Your task to perform on an android device: turn on javascript in the chrome app Image 0: 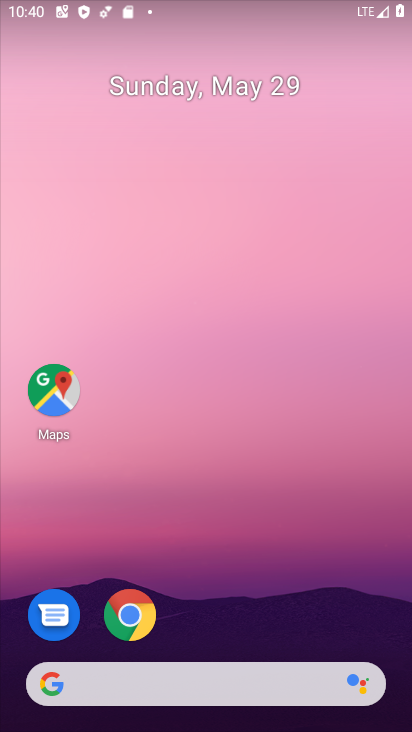
Step 0: drag from (367, 630) to (356, 285)
Your task to perform on an android device: turn on javascript in the chrome app Image 1: 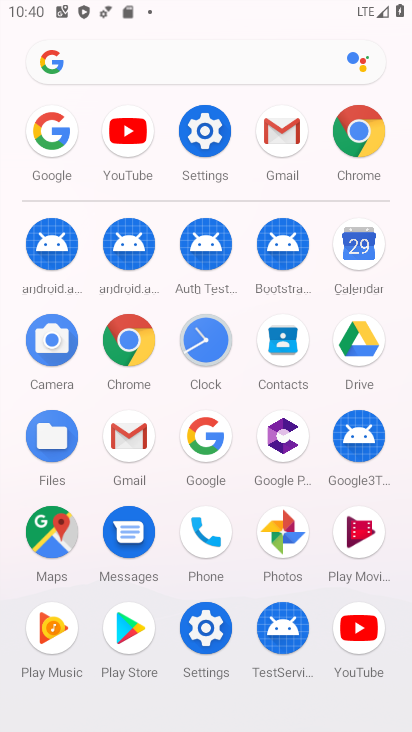
Step 1: click (136, 364)
Your task to perform on an android device: turn on javascript in the chrome app Image 2: 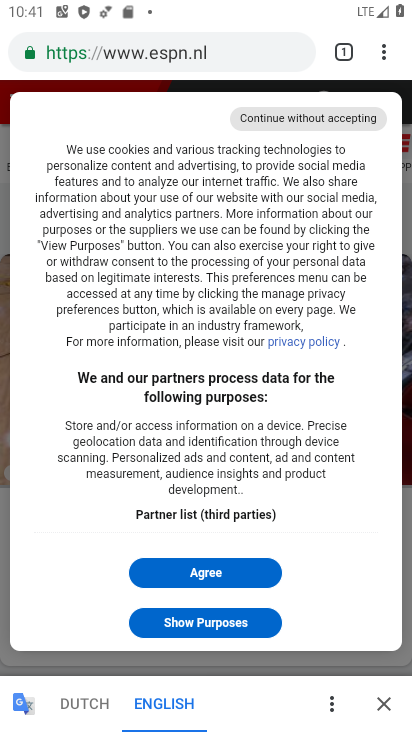
Step 2: click (382, 57)
Your task to perform on an android device: turn on javascript in the chrome app Image 3: 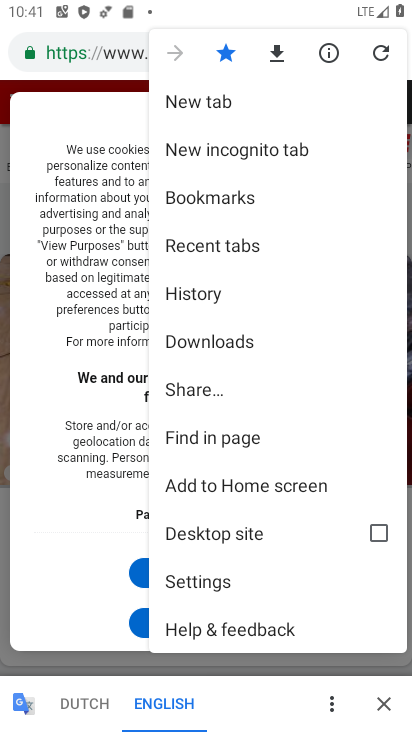
Step 3: click (271, 595)
Your task to perform on an android device: turn on javascript in the chrome app Image 4: 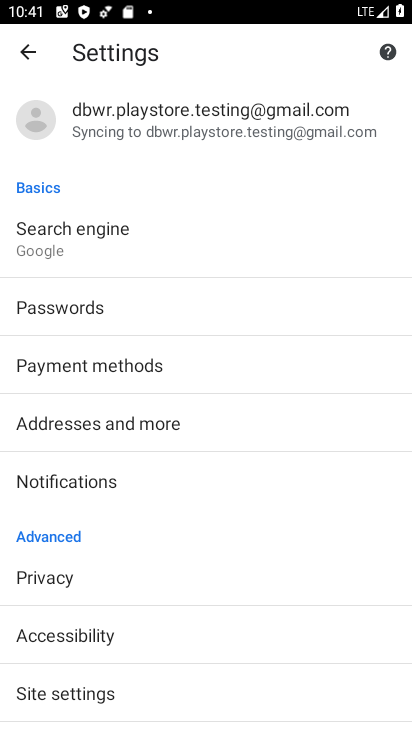
Step 4: drag from (265, 255) to (247, 404)
Your task to perform on an android device: turn on javascript in the chrome app Image 5: 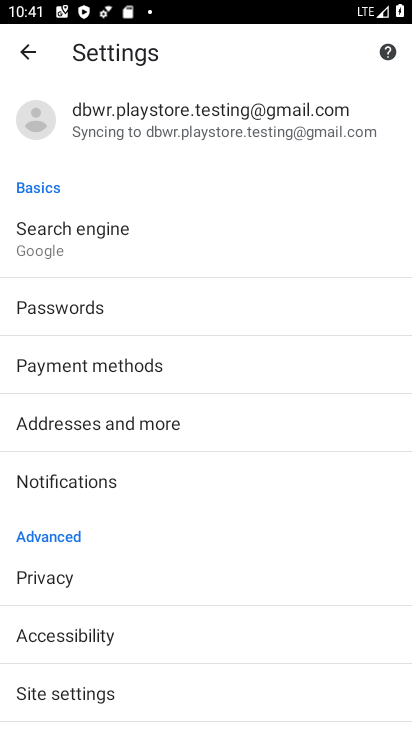
Step 5: click (243, 478)
Your task to perform on an android device: turn on javascript in the chrome app Image 6: 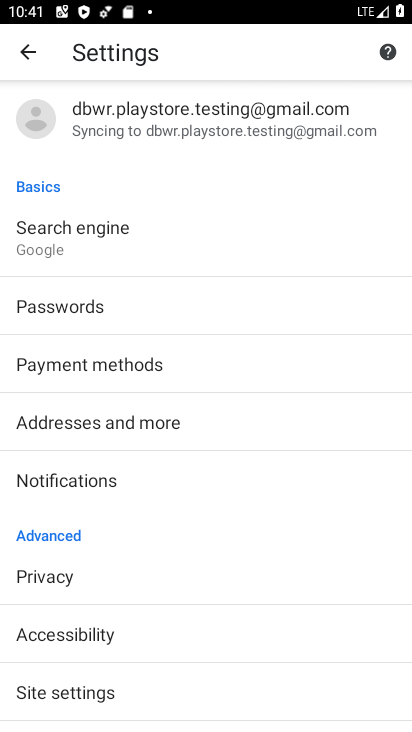
Step 6: drag from (263, 539) to (266, 442)
Your task to perform on an android device: turn on javascript in the chrome app Image 7: 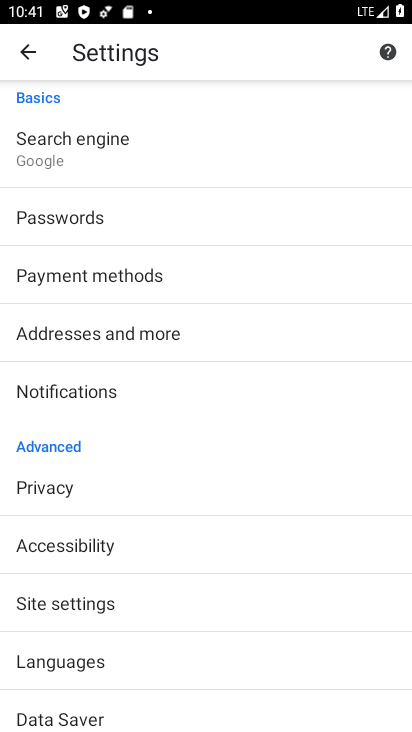
Step 7: drag from (282, 566) to (280, 499)
Your task to perform on an android device: turn on javascript in the chrome app Image 8: 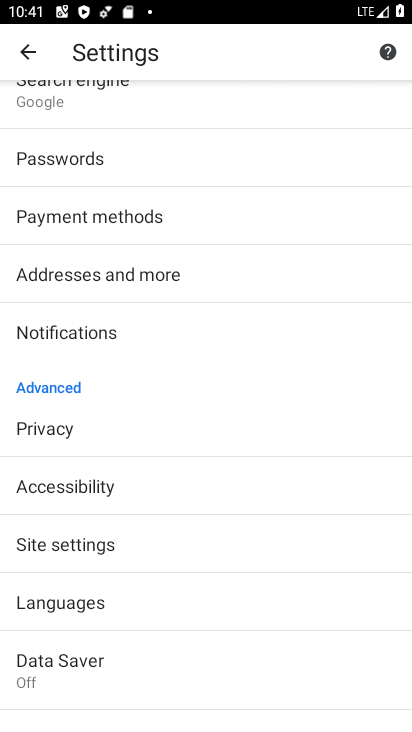
Step 8: drag from (280, 528) to (287, 360)
Your task to perform on an android device: turn on javascript in the chrome app Image 9: 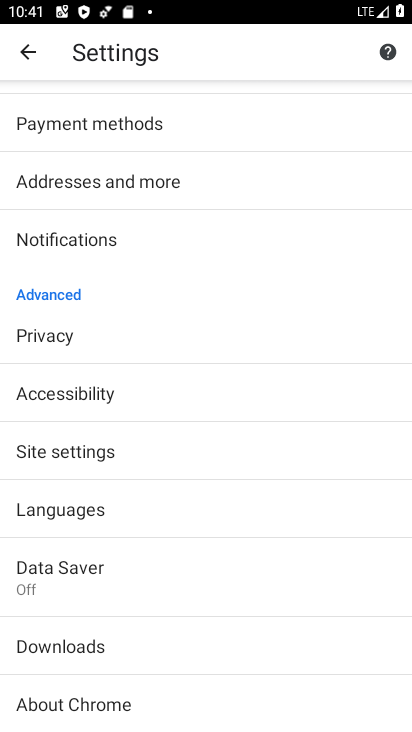
Step 9: drag from (298, 552) to (297, 446)
Your task to perform on an android device: turn on javascript in the chrome app Image 10: 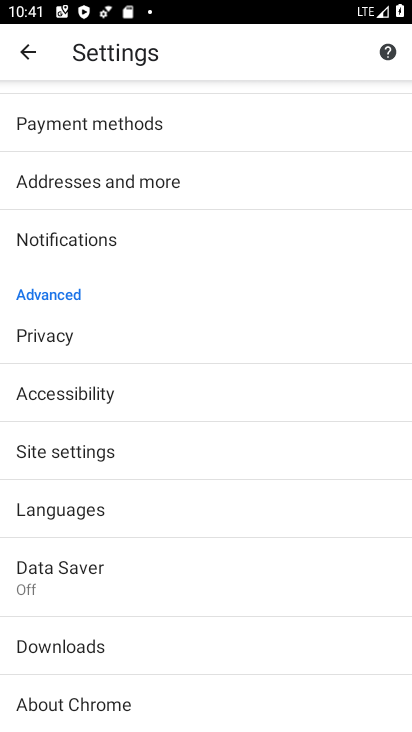
Step 10: drag from (294, 383) to (294, 490)
Your task to perform on an android device: turn on javascript in the chrome app Image 11: 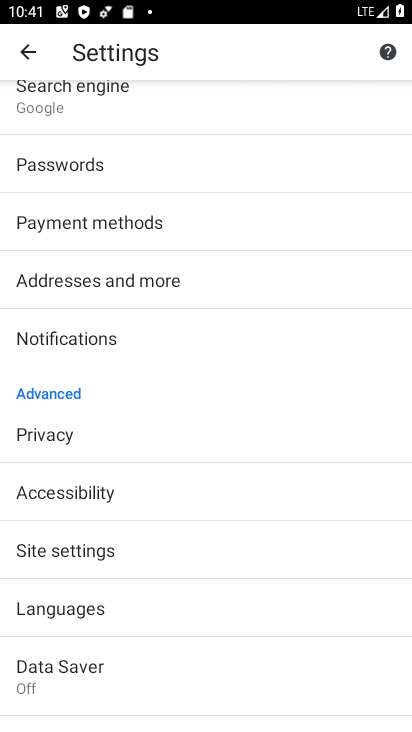
Step 11: click (272, 561)
Your task to perform on an android device: turn on javascript in the chrome app Image 12: 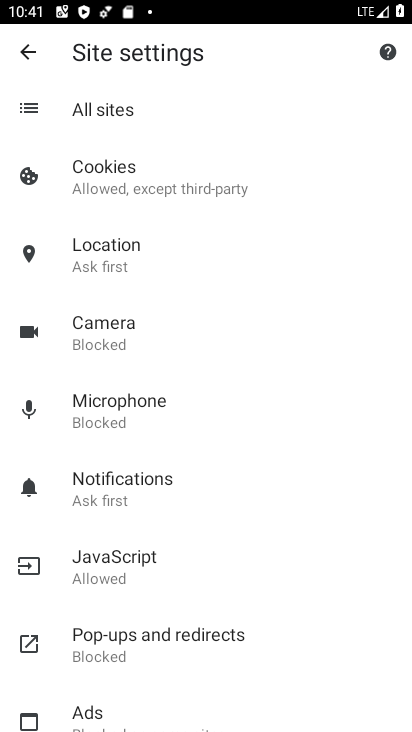
Step 12: drag from (284, 565) to (285, 437)
Your task to perform on an android device: turn on javascript in the chrome app Image 13: 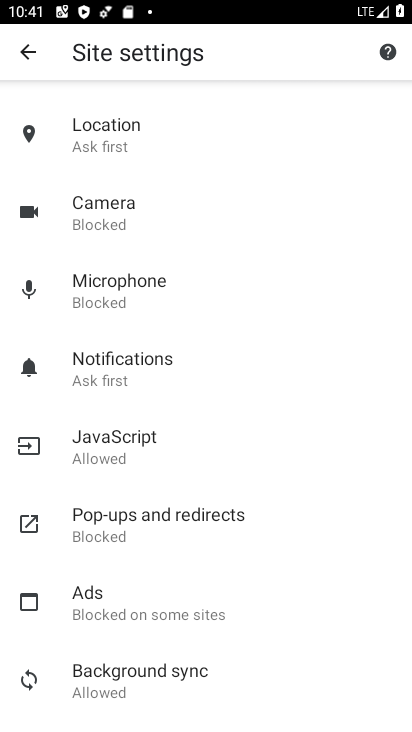
Step 13: drag from (315, 578) to (337, 463)
Your task to perform on an android device: turn on javascript in the chrome app Image 14: 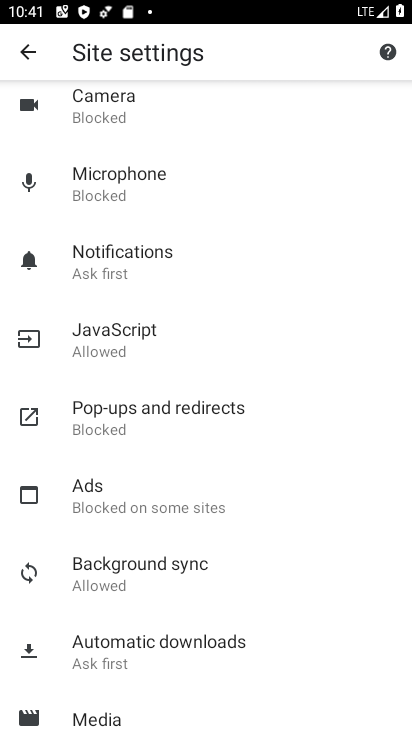
Step 14: click (191, 340)
Your task to perform on an android device: turn on javascript in the chrome app Image 15: 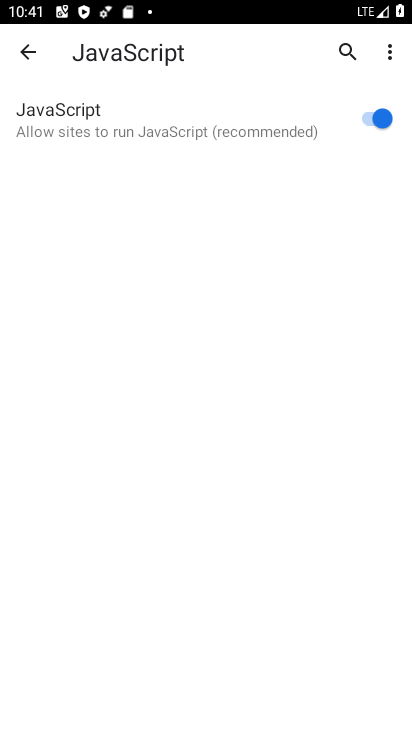
Step 15: task complete